Your task to perform on an android device: turn on wifi Image 0: 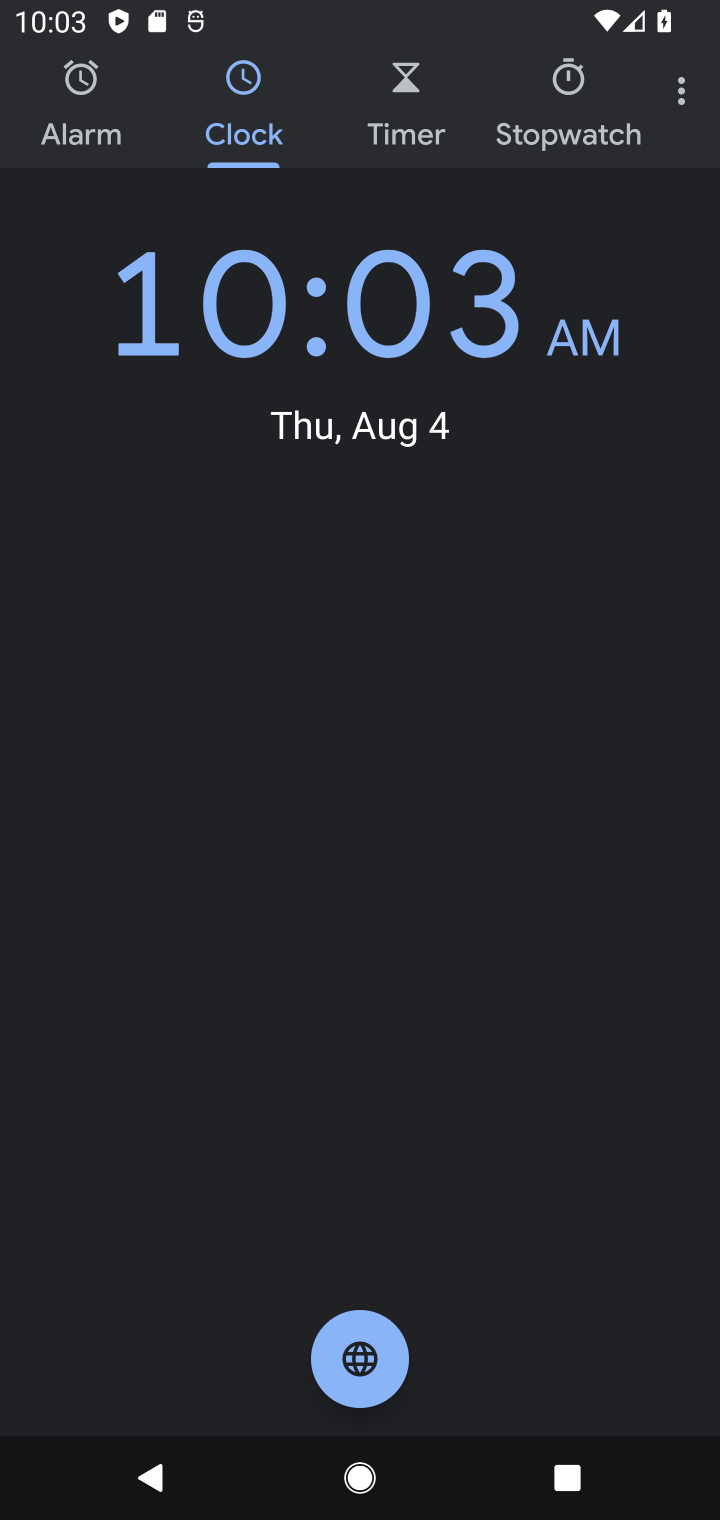
Step 0: press home button
Your task to perform on an android device: turn on wifi Image 1: 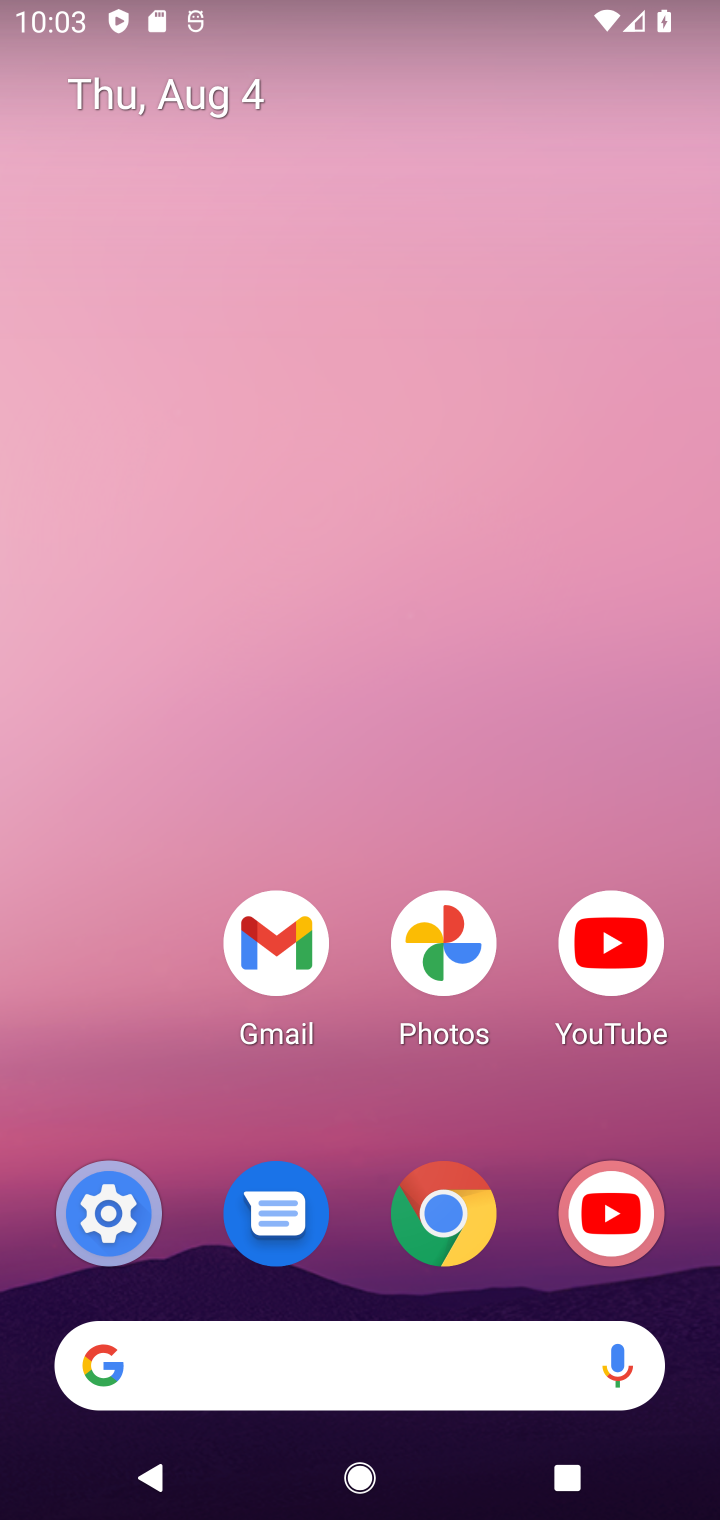
Step 1: drag from (230, 15) to (431, 1125)
Your task to perform on an android device: turn on wifi Image 2: 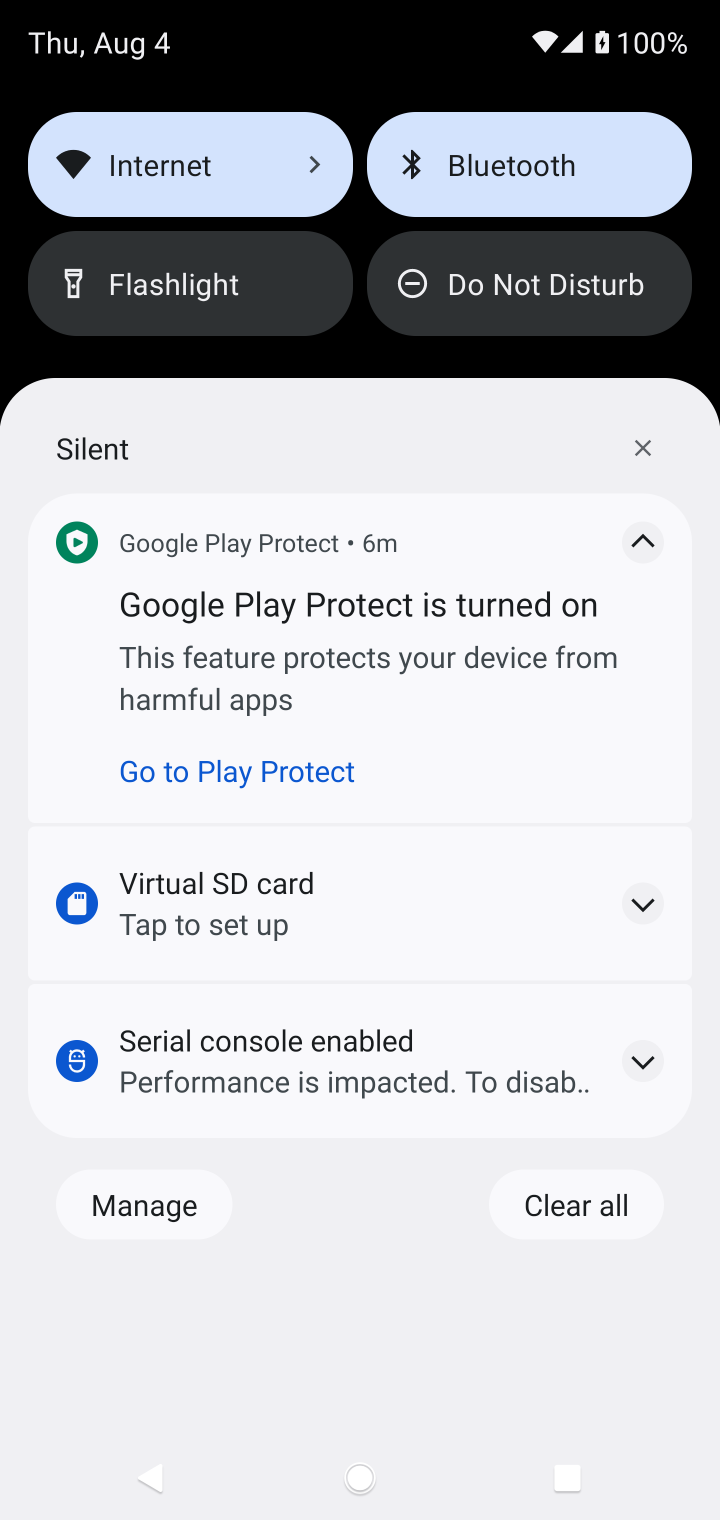
Step 2: click (175, 149)
Your task to perform on an android device: turn on wifi Image 3: 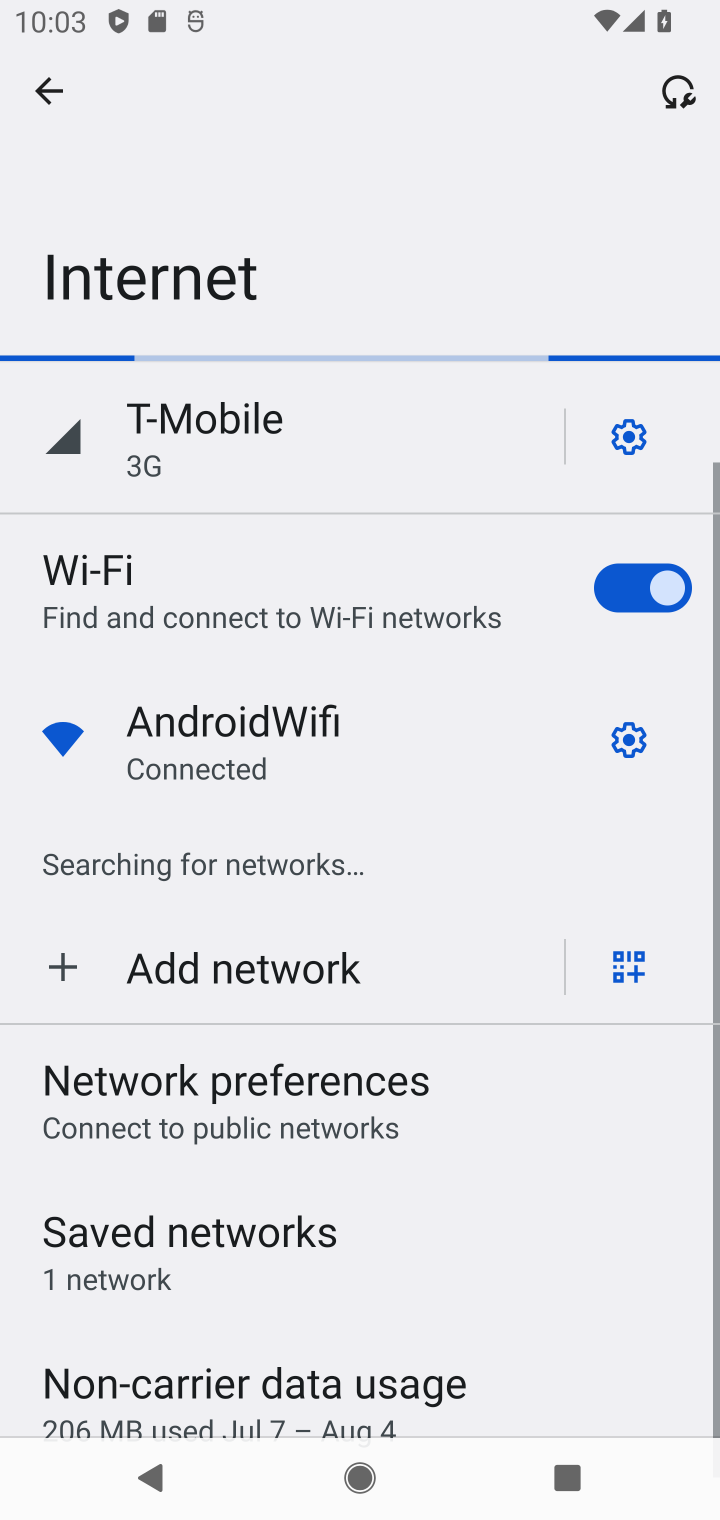
Step 3: task complete